Your task to perform on an android device: Open Google Maps Image 0: 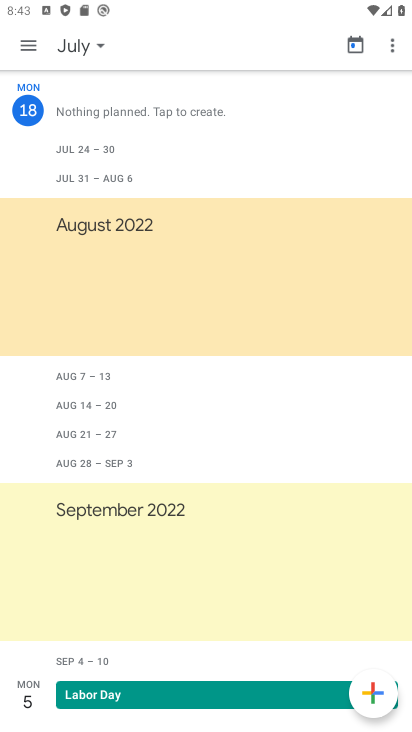
Step 0: press home button
Your task to perform on an android device: Open Google Maps Image 1: 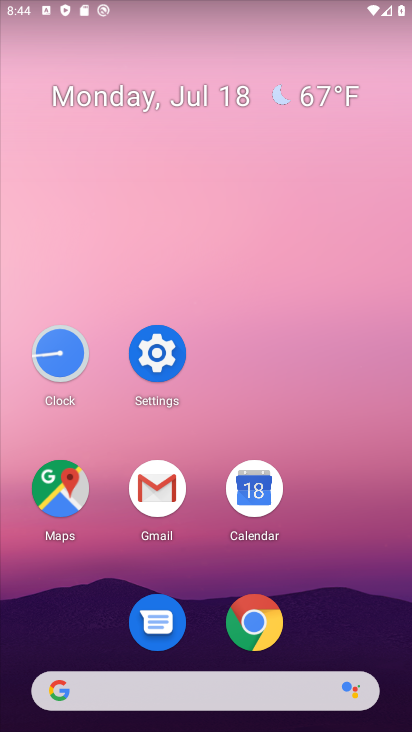
Step 1: click (56, 491)
Your task to perform on an android device: Open Google Maps Image 2: 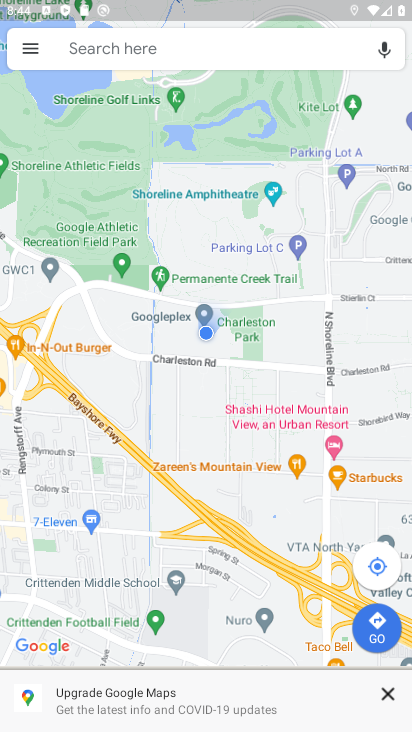
Step 2: task complete